Your task to perform on an android device: Open display settings Image 0: 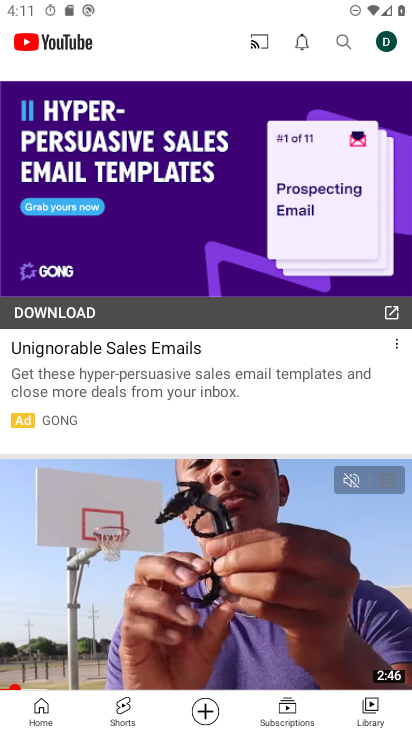
Step 0: press home button
Your task to perform on an android device: Open display settings Image 1: 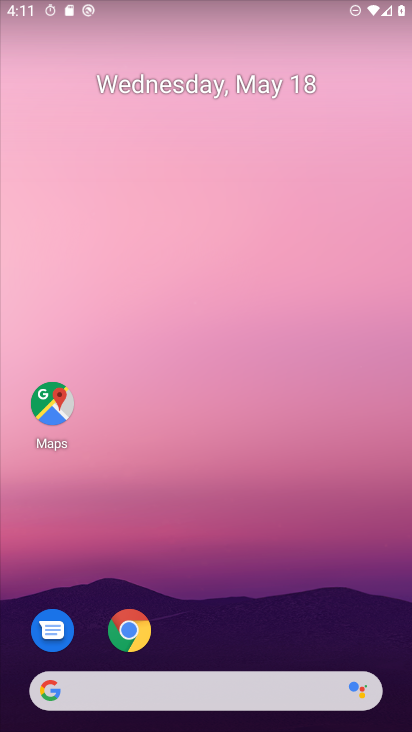
Step 1: drag from (222, 639) to (275, 99)
Your task to perform on an android device: Open display settings Image 2: 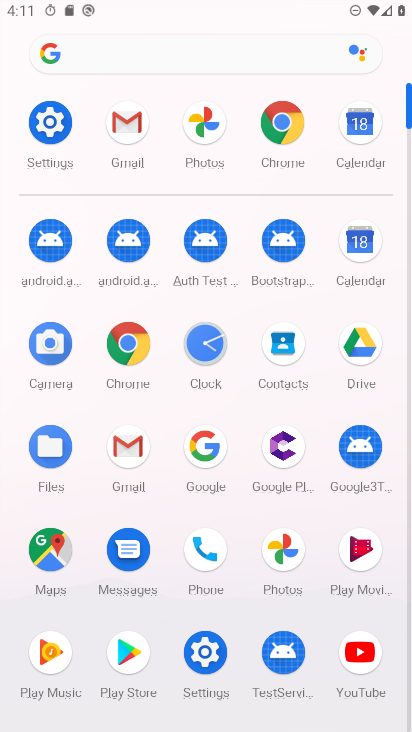
Step 2: click (46, 120)
Your task to perform on an android device: Open display settings Image 3: 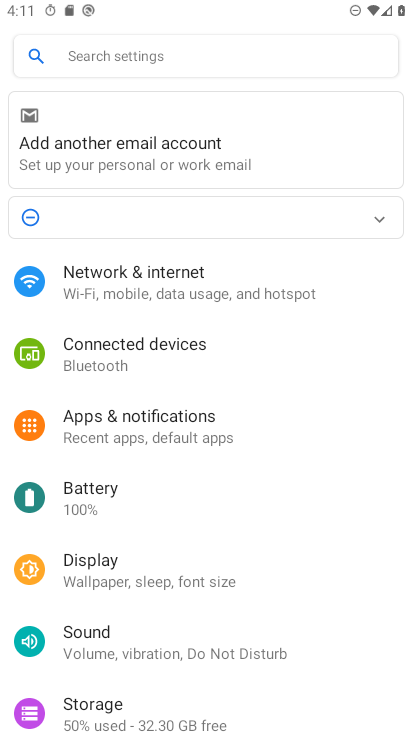
Step 3: click (139, 563)
Your task to perform on an android device: Open display settings Image 4: 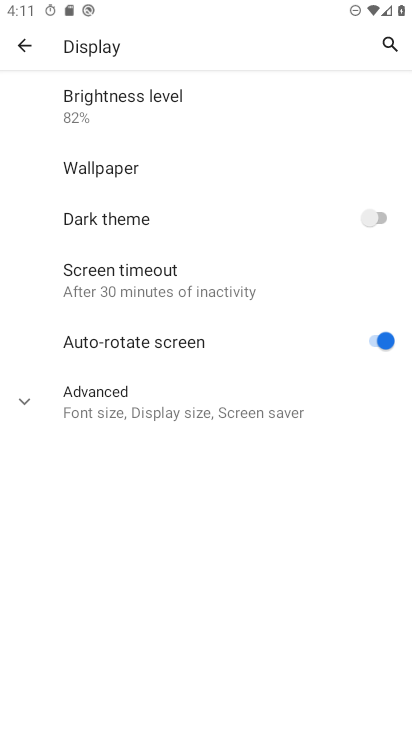
Step 4: click (22, 397)
Your task to perform on an android device: Open display settings Image 5: 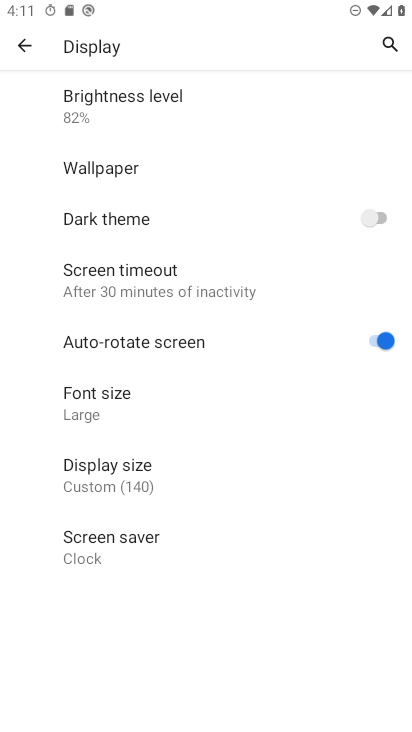
Step 5: task complete